Your task to perform on an android device: change the clock display to digital Image 0: 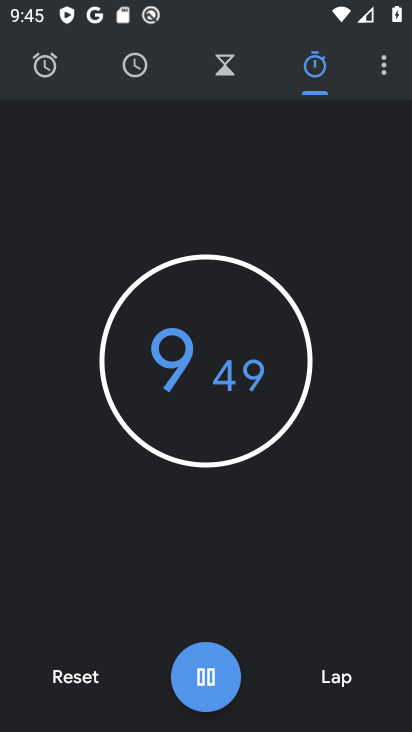
Step 0: click (387, 64)
Your task to perform on an android device: change the clock display to digital Image 1: 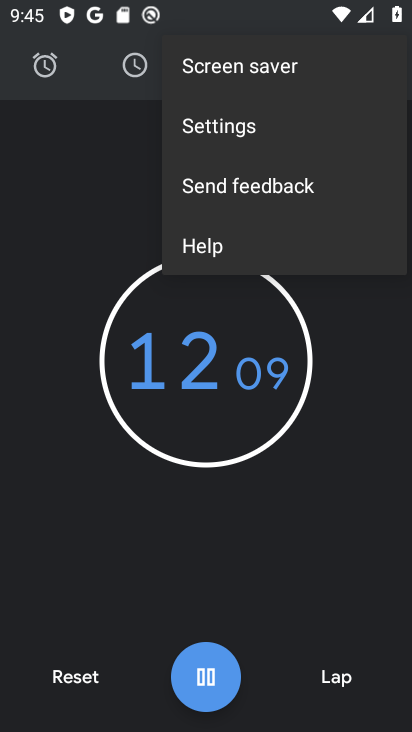
Step 1: click (259, 119)
Your task to perform on an android device: change the clock display to digital Image 2: 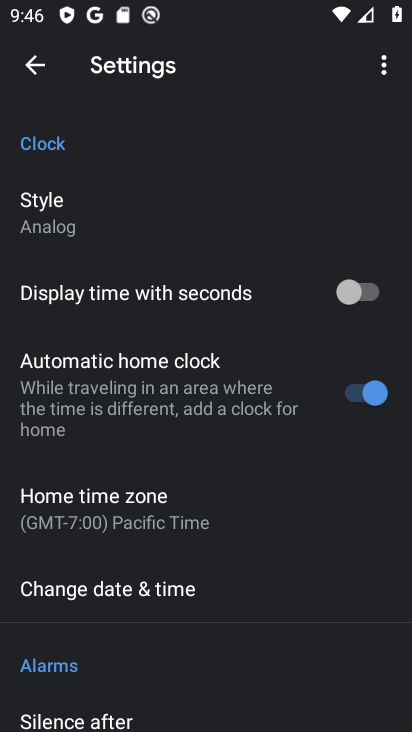
Step 2: click (86, 215)
Your task to perform on an android device: change the clock display to digital Image 3: 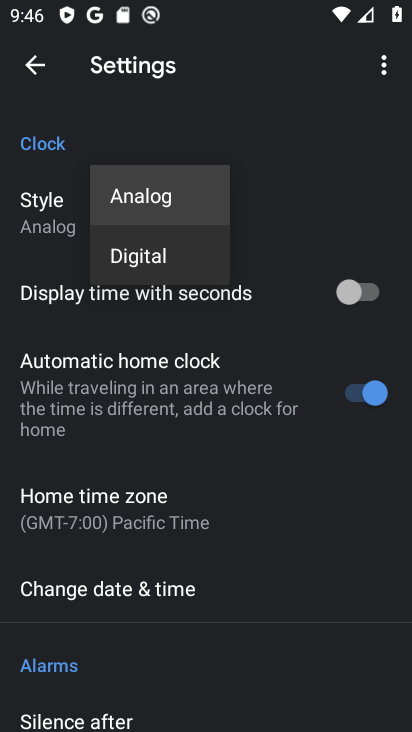
Step 3: click (120, 248)
Your task to perform on an android device: change the clock display to digital Image 4: 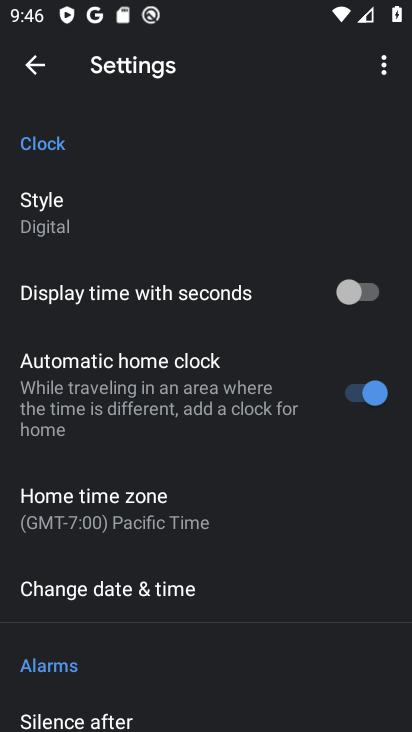
Step 4: task complete